Your task to perform on an android device: toggle improve location accuracy Image 0: 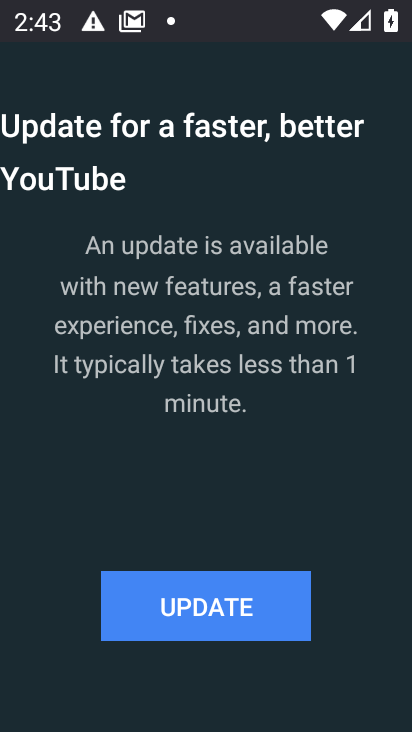
Step 0: click (236, 616)
Your task to perform on an android device: toggle improve location accuracy Image 1: 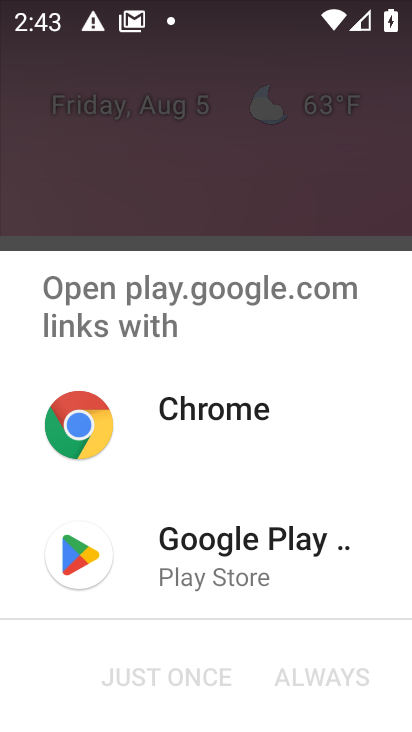
Step 1: press home button
Your task to perform on an android device: toggle improve location accuracy Image 2: 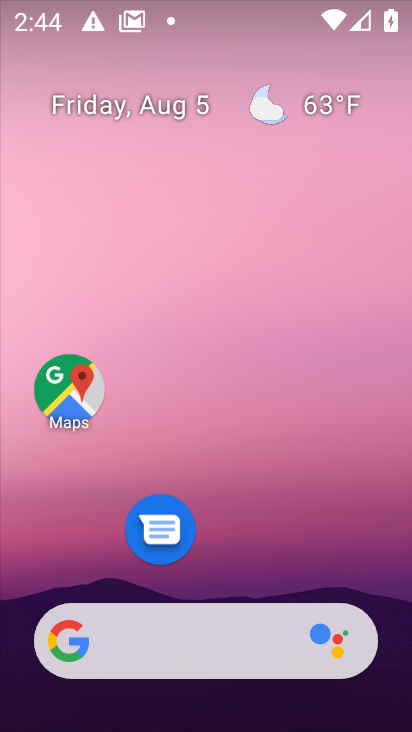
Step 2: drag from (182, 611) to (235, 98)
Your task to perform on an android device: toggle improve location accuracy Image 3: 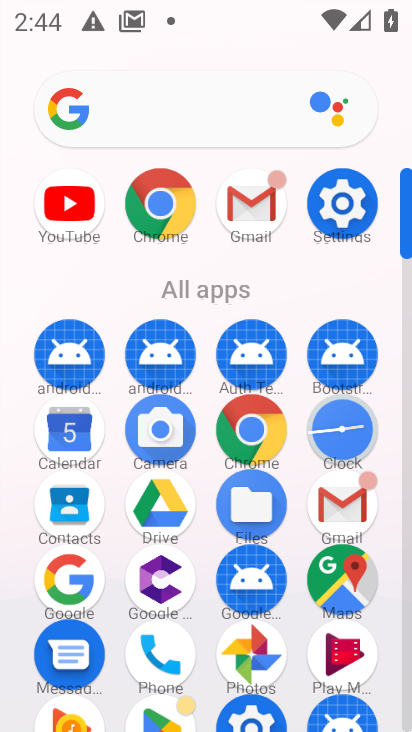
Step 3: click (358, 191)
Your task to perform on an android device: toggle improve location accuracy Image 4: 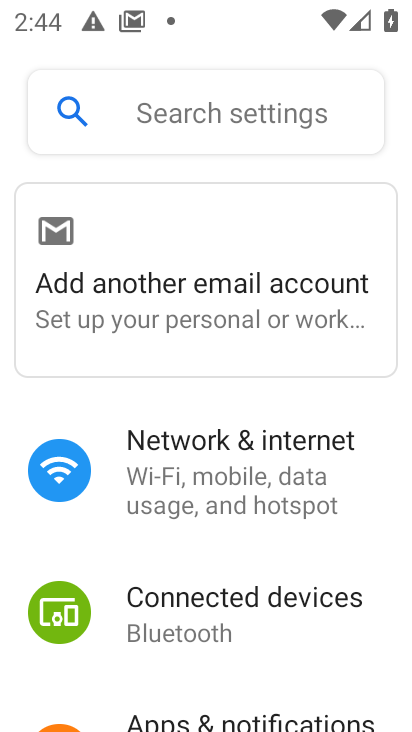
Step 4: drag from (226, 671) to (225, 219)
Your task to perform on an android device: toggle improve location accuracy Image 5: 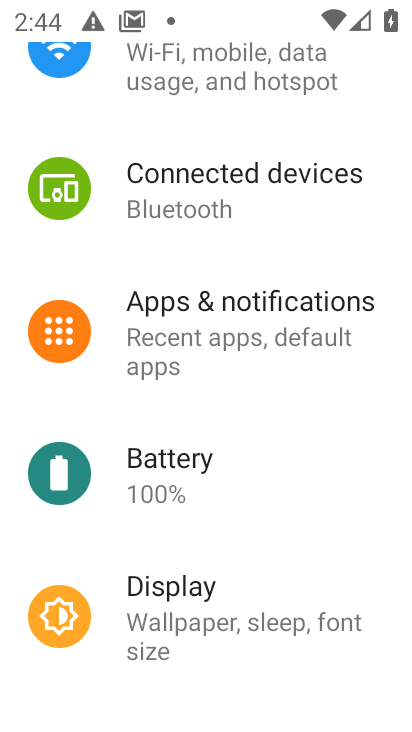
Step 5: drag from (274, 609) to (289, 183)
Your task to perform on an android device: toggle improve location accuracy Image 6: 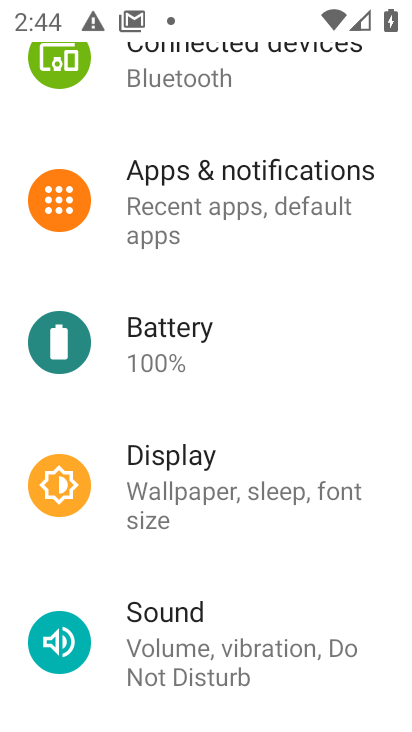
Step 6: drag from (213, 619) to (226, 89)
Your task to perform on an android device: toggle improve location accuracy Image 7: 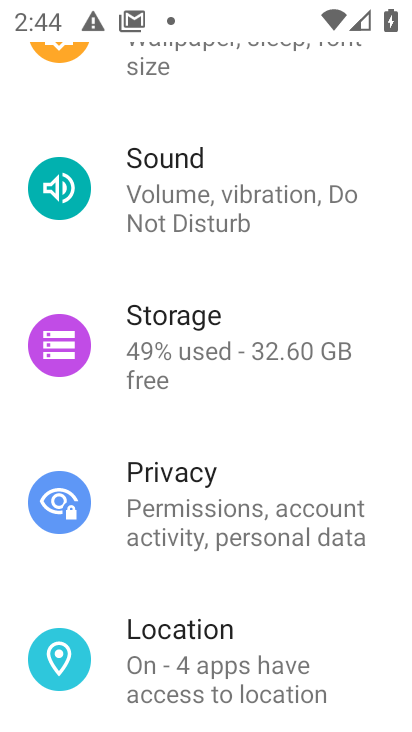
Step 7: click (240, 673)
Your task to perform on an android device: toggle improve location accuracy Image 8: 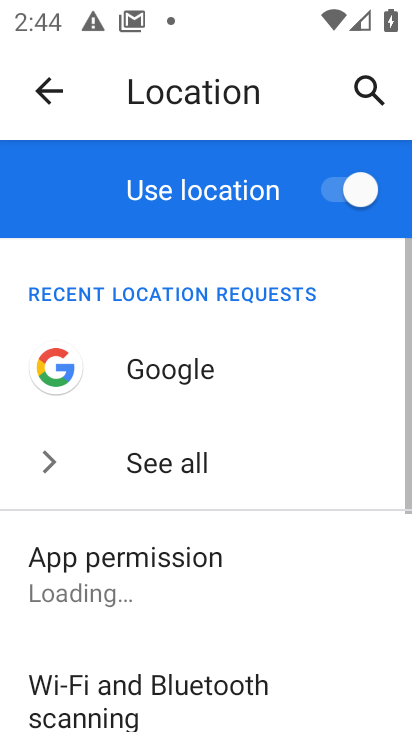
Step 8: drag from (265, 546) to (243, 5)
Your task to perform on an android device: toggle improve location accuracy Image 9: 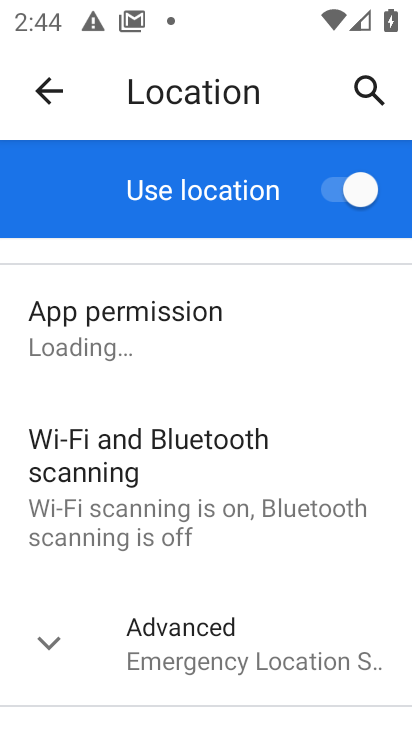
Step 9: drag from (276, 665) to (281, 132)
Your task to perform on an android device: toggle improve location accuracy Image 10: 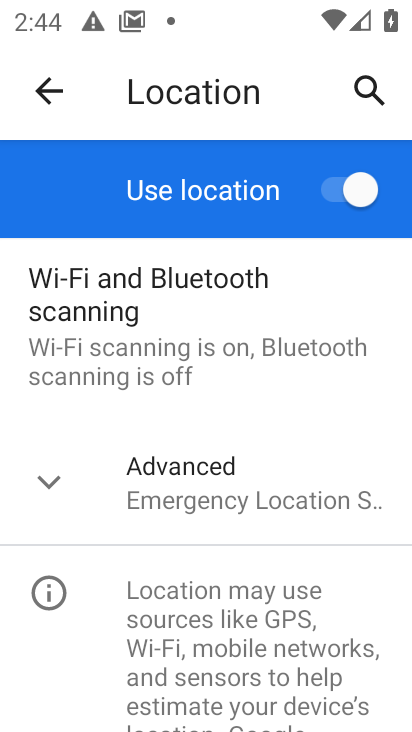
Step 10: click (296, 503)
Your task to perform on an android device: toggle improve location accuracy Image 11: 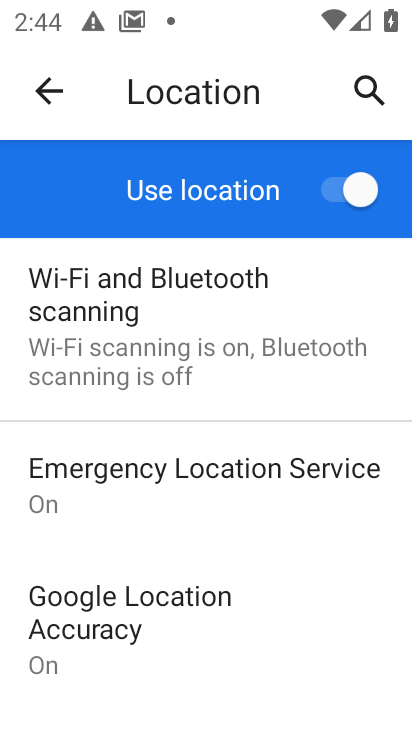
Step 11: click (162, 604)
Your task to perform on an android device: toggle improve location accuracy Image 12: 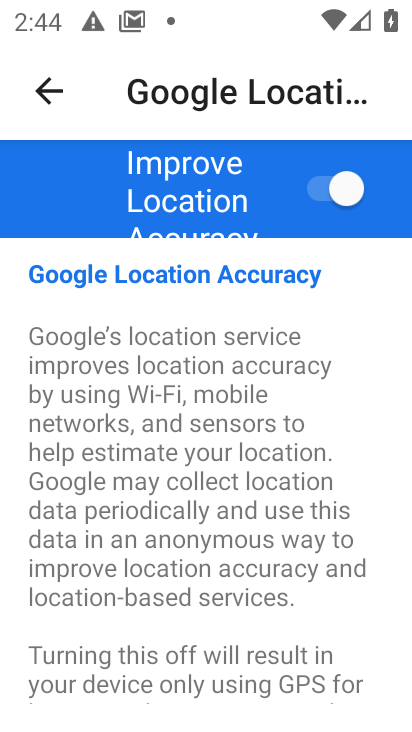
Step 12: click (339, 187)
Your task to perform on an android device: toggle improve location accuracy Image 13: 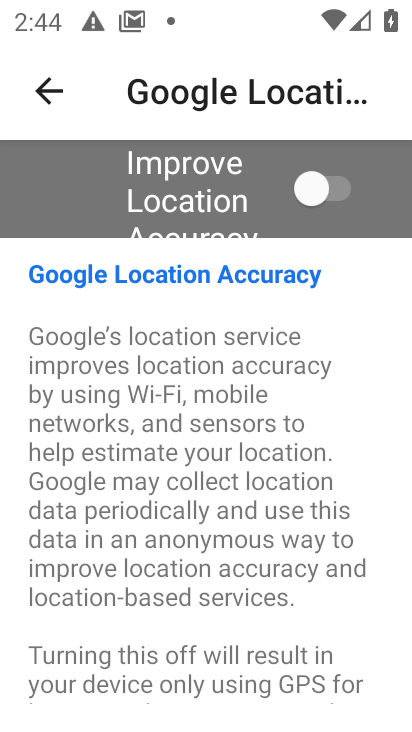
Step 13: task complete